Your task to perform on an android device: Check the weather Image 0: 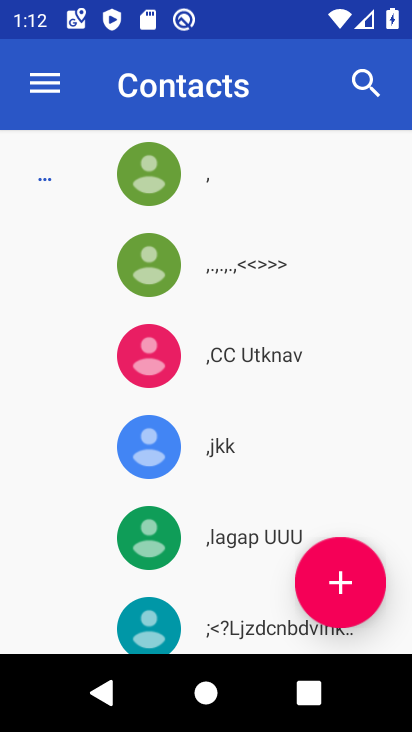
Step 0: press back button
Your task to perform on an android device: Check the weather Image 1: 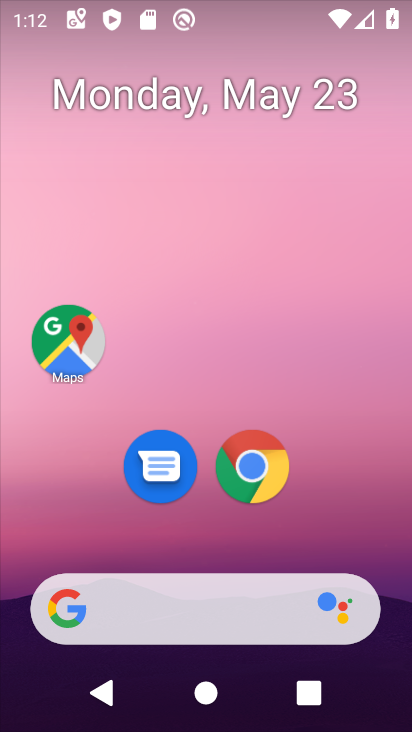
Step 1: drag from (339, 517) to (297, 115)
Your task to perform on an android device: Check the weather Image 2: 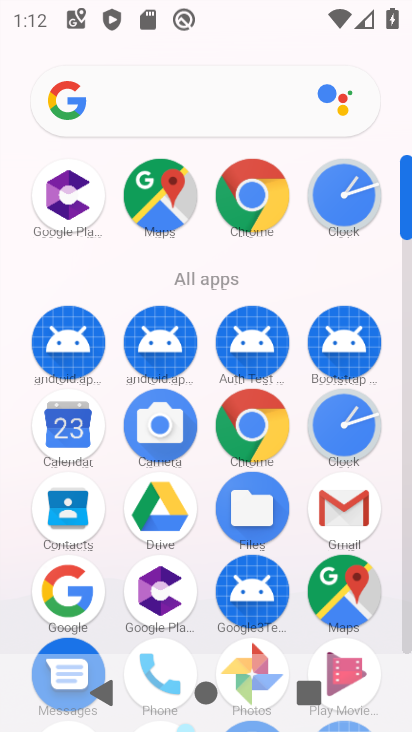
Step 2: click (63, 592)
Your task to perform on an android device: Check the weather Image 3: 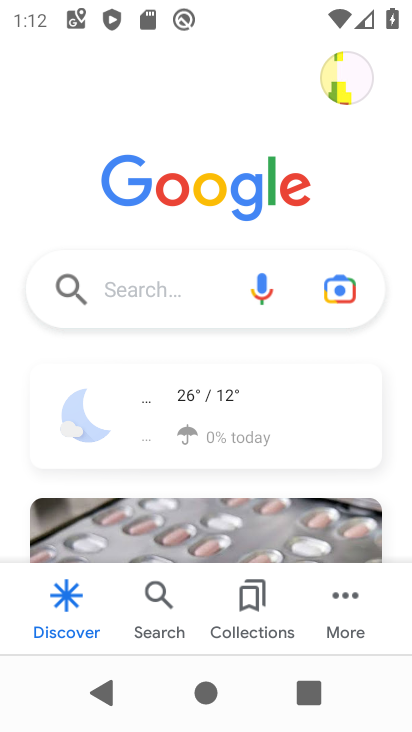
Step 3: click (173, 429)
Your task to perform on an android device: Check the weather Image 4: 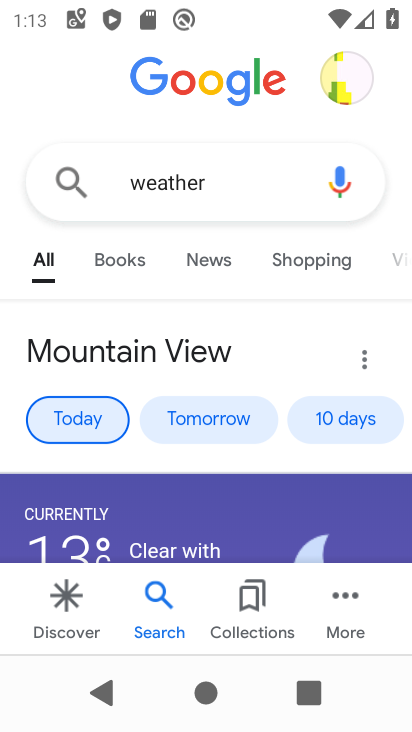
Step 4: task complete